Your task to perform on an android device: turn off location Image 0: 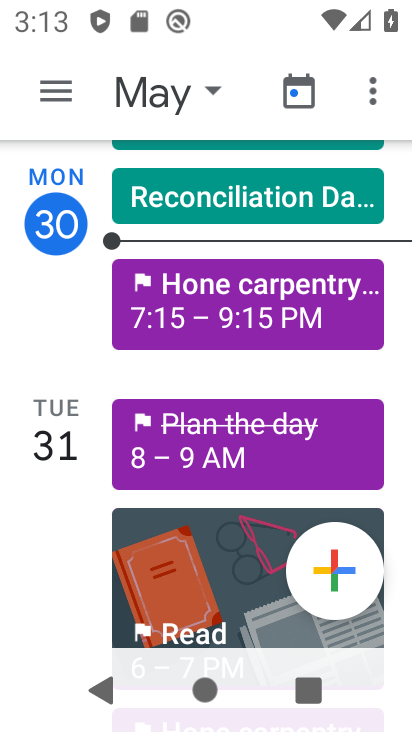
Step 0: press home button
Your task to perform on an android device: turn off location Image 1: 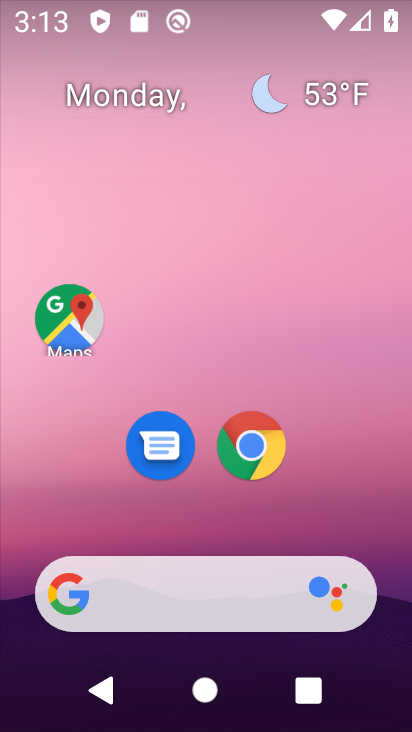
Step 1: drag from (182, 526) to (247, 16)
Your task to perform on an android device: turn off location Image 2: 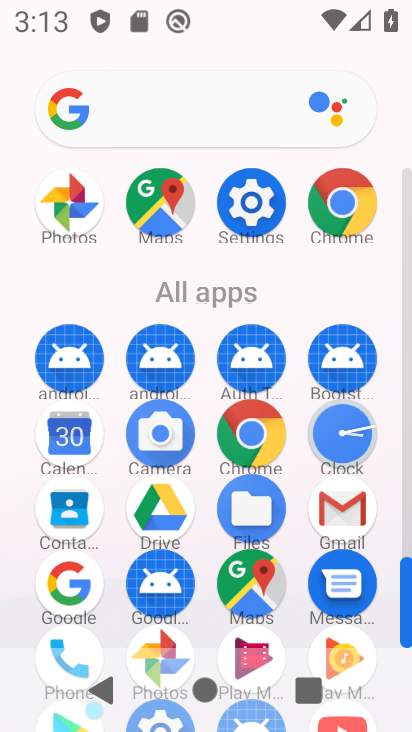
Step 2: click (256, 232)
Your task to perform on an android device: turn off location Image 3: 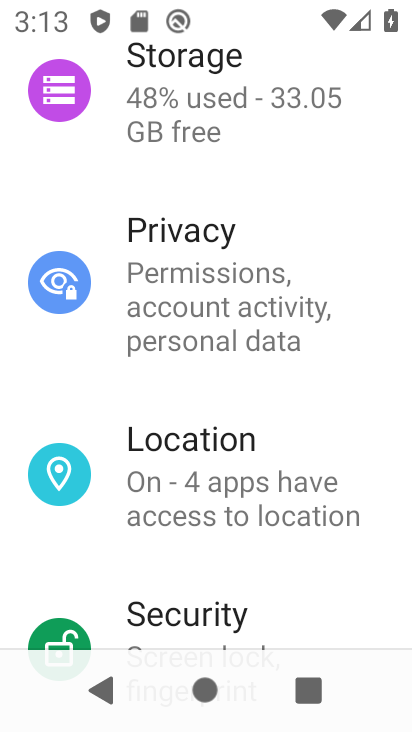
Step 3: click (211, 511)
Your task to perform on an android device: turn off location Image 4: 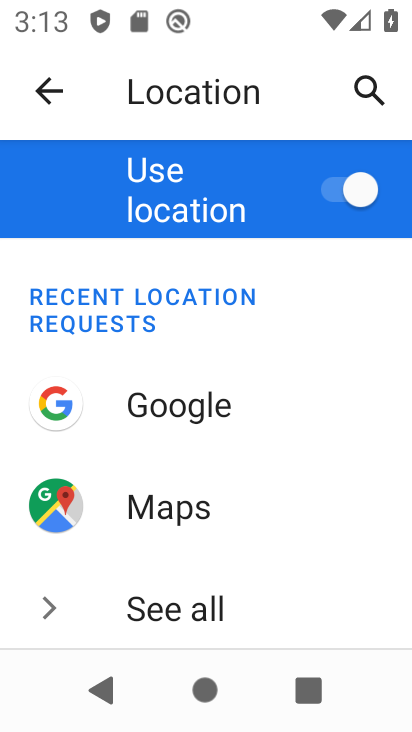
Step 4: drag from (212, 463) to (197, 256)
Your task to perform on an android device: turn off location Image 5: 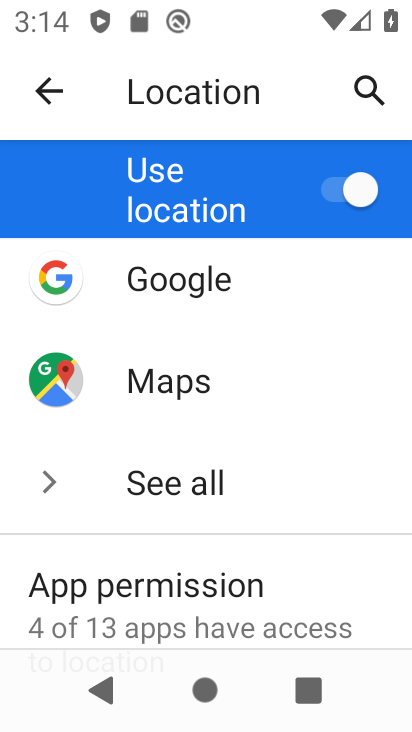
Step 5: click (325, 182)
Your task to perform on an android device: turn off location Image 6: 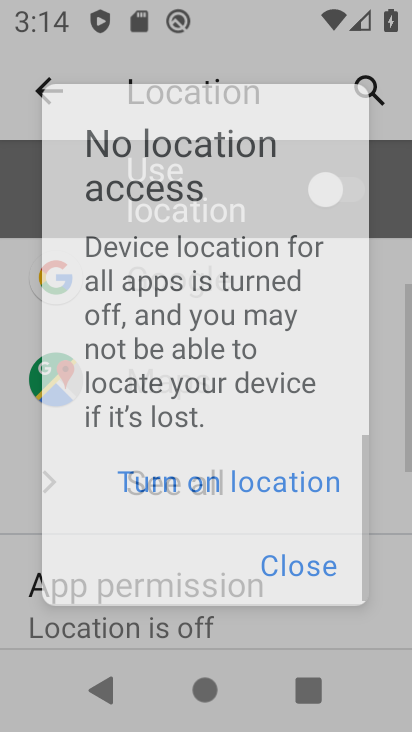
Step 6: task complete